Your task to perform on an android device: Open accessibility settings Image 0: 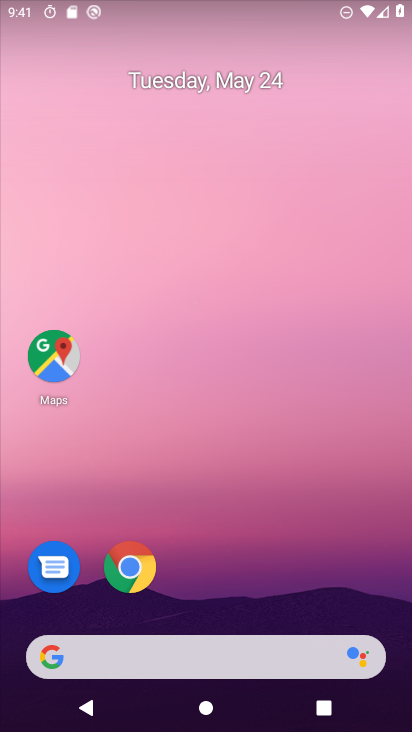
Step 0: drag from (226, 617) to (381, 47)
Your task to perform on an android device: Open accessibility settings Image 1: 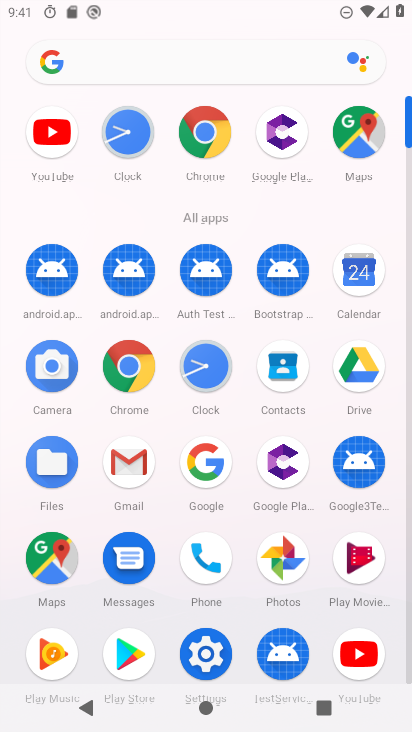
Step 1: click (180, 647)
Your task to perform on an android device: Open accessibility settings Image 2: 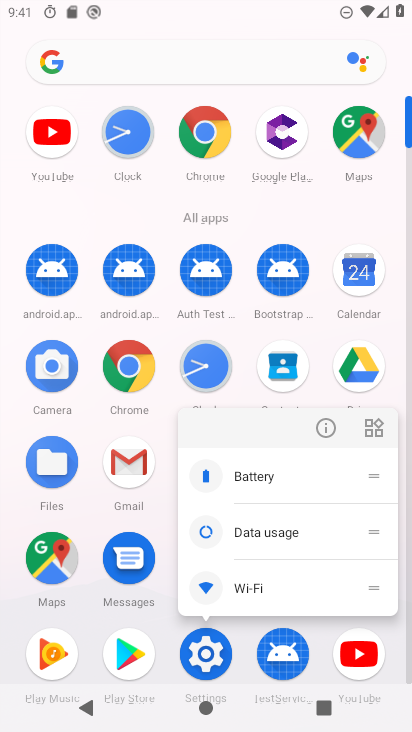
Step 2: click (189, 647)
Your task to perform on an android device: Open accessibility settings Image 3: 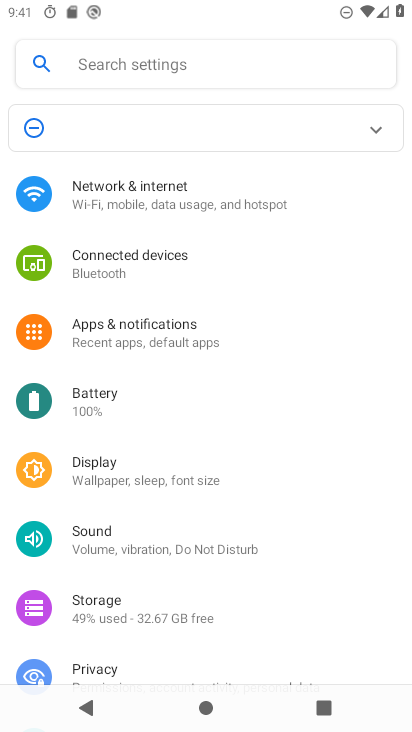
Step 3: drag from (166, 598) to (315, 0)
Your task to perform on an android device: Open accessibility settings Image 4: 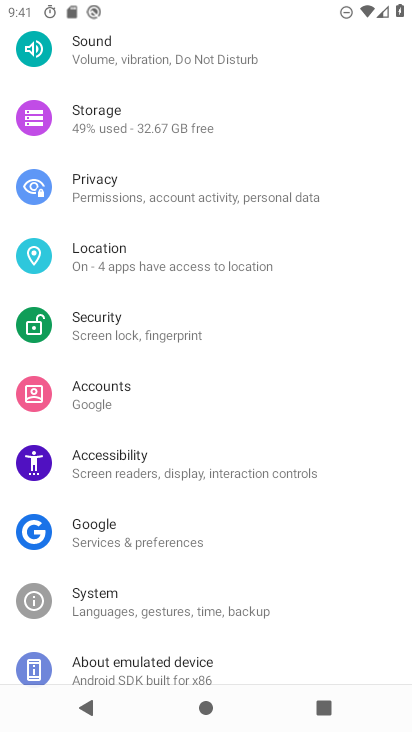
Step 4: click (232, 387)
Your task to perform on an android device: Open accessibility settings Image 5: 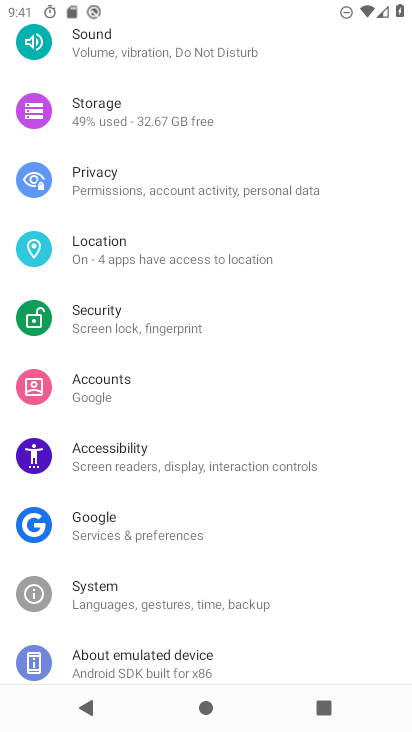
Step 5: click (148, 452)
Your task to perform on an android device: Open accessibility settings Image 6: 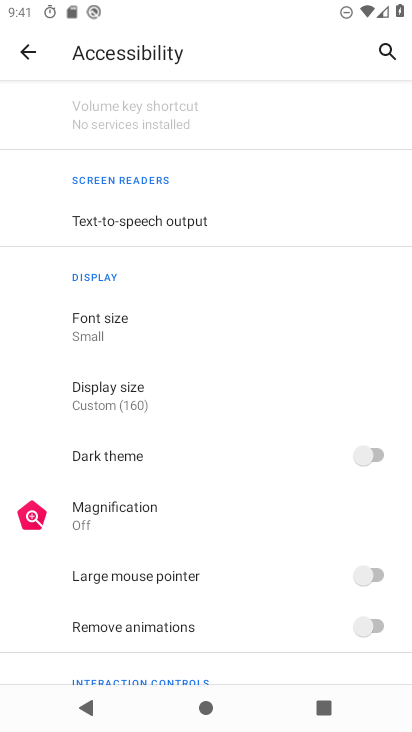
Step 6: task complete